Your task to perform on an android device: Go to battery settings Image 0: 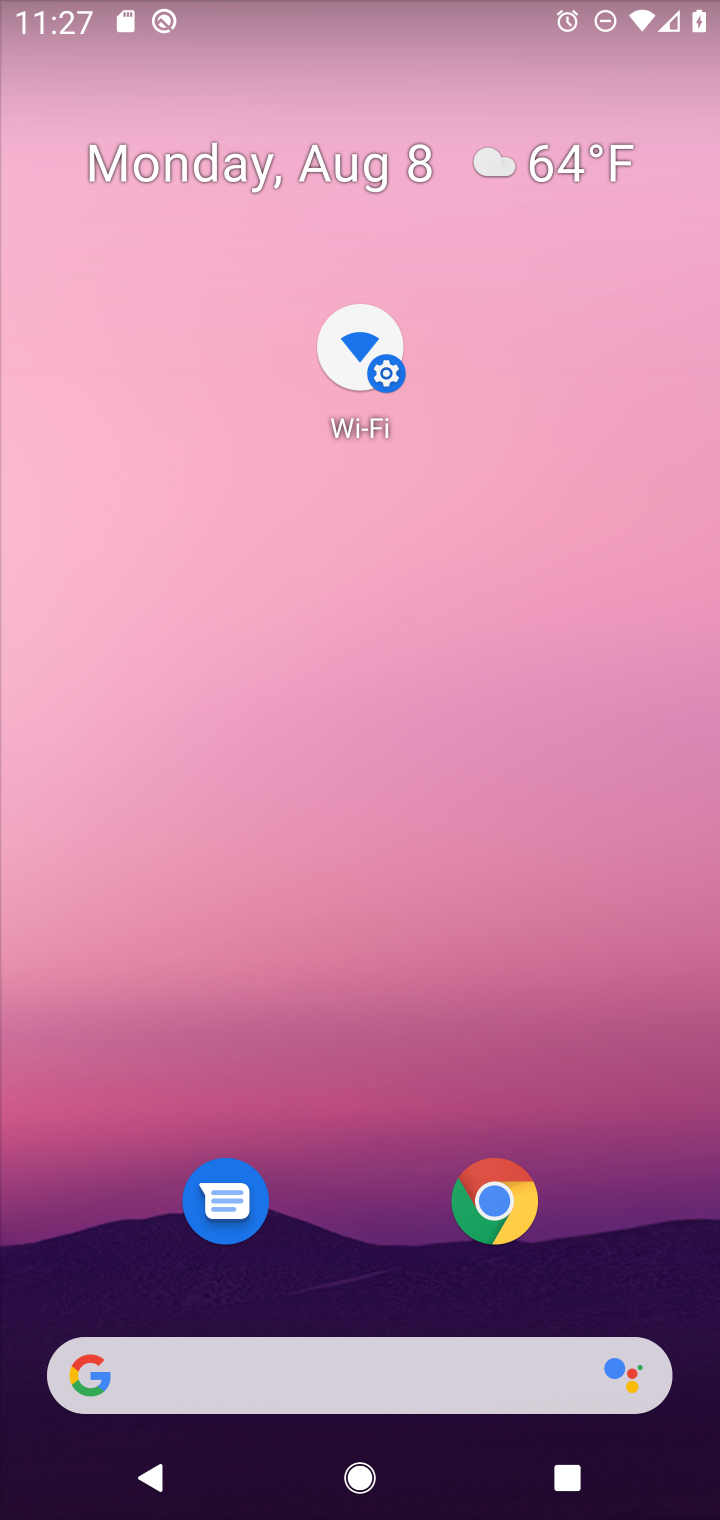
Step 0: press home button
Your task to perform on an android device: Go to battery settings Image 1: 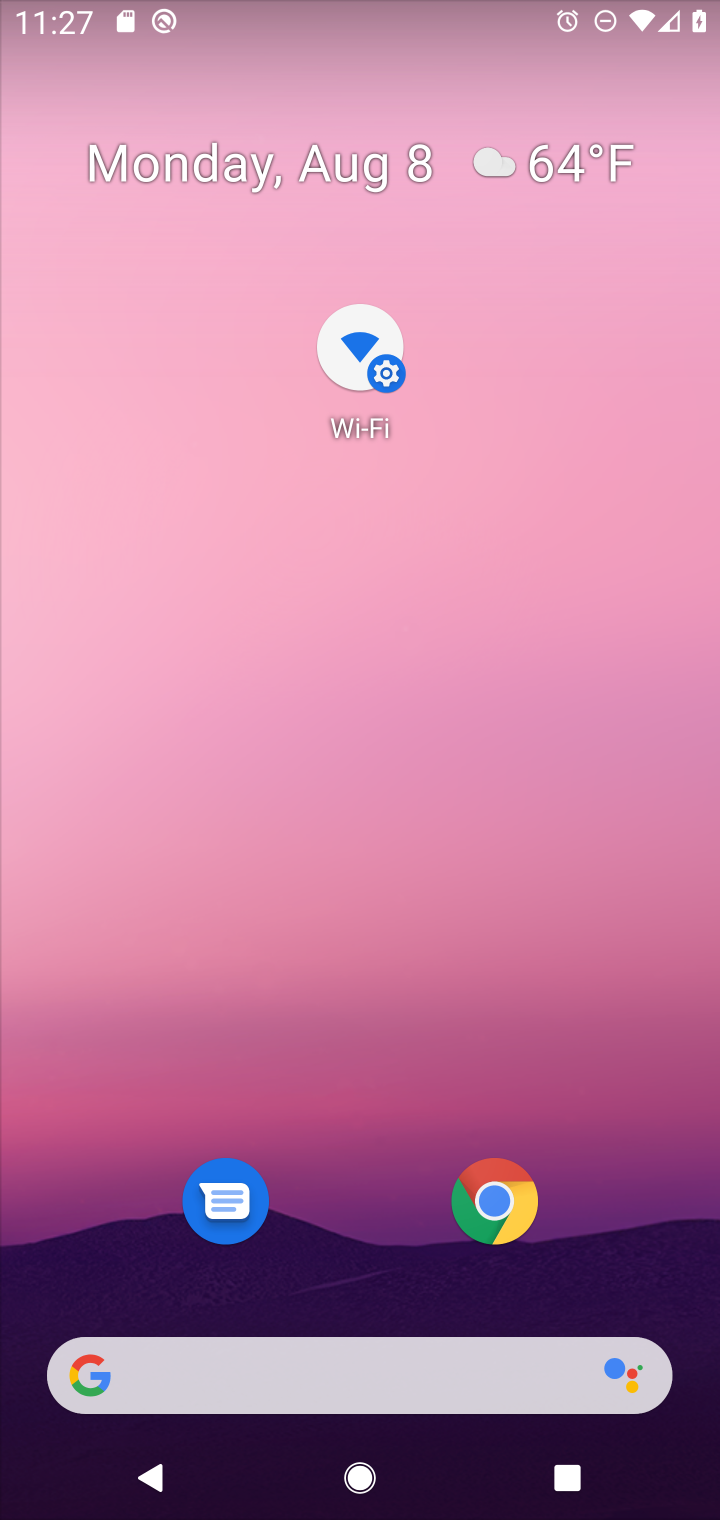
Step 1: drag from (612, 988) to (627, 154)
Your task to perform on an android device: Go to battery settings Image 2: 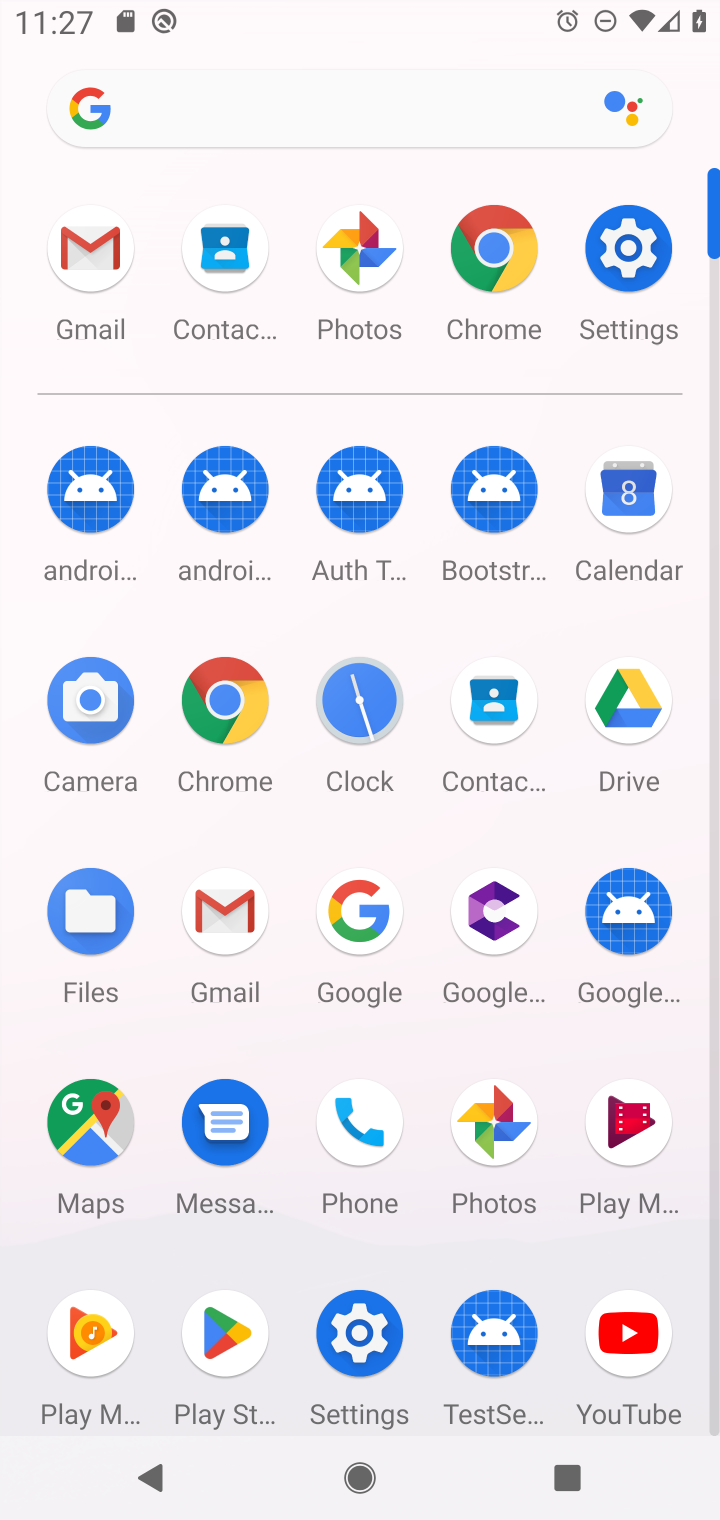
Step 2: click (642, 262)
Your task to perform on an android device: Go to battery settings Image 3: 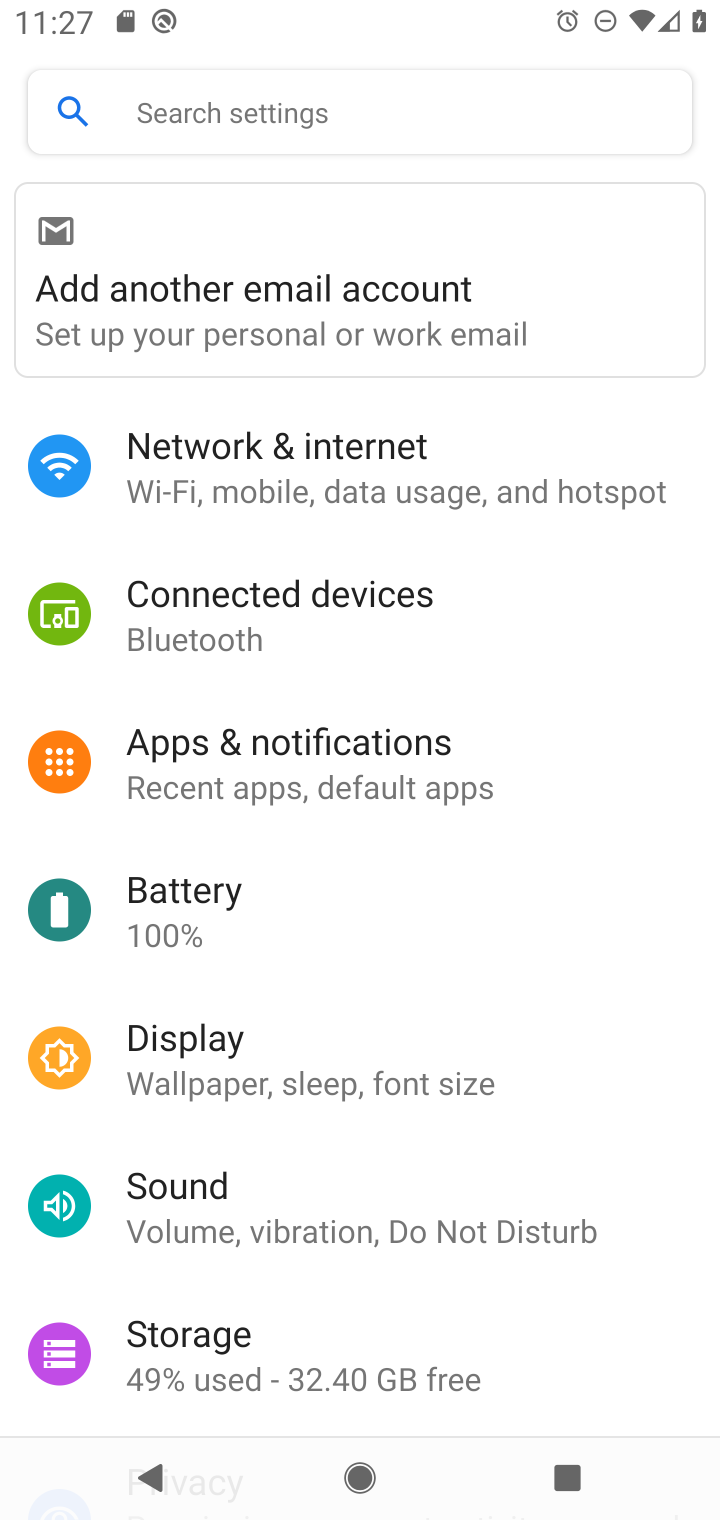
Step 3: drag from (614, 1079) to (630, 694)
Your task to perform on an android device: Go to battery settings Image 4: 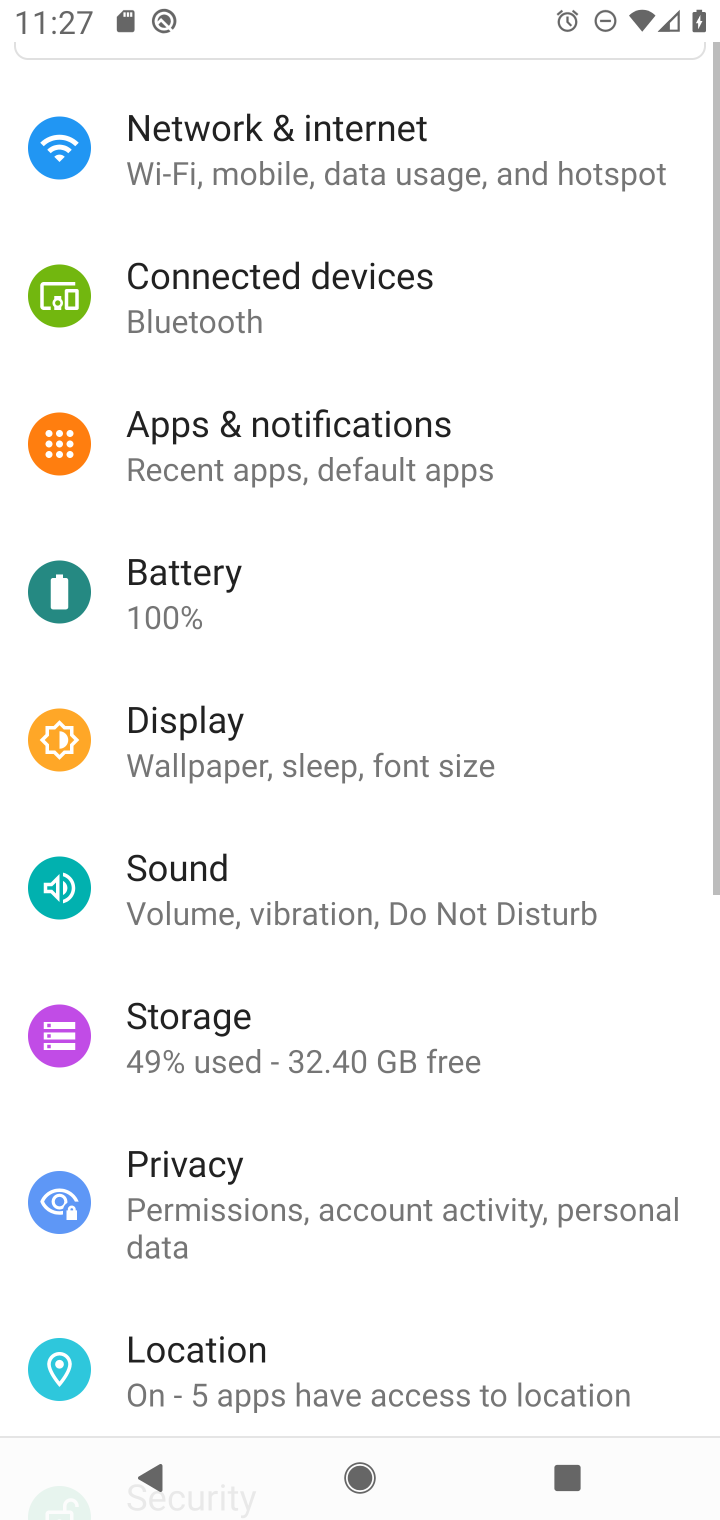
Step 4: drag from (610, 1225) to (617, 699)
Your task to perform on an android device: Go to battery settings Image 5: 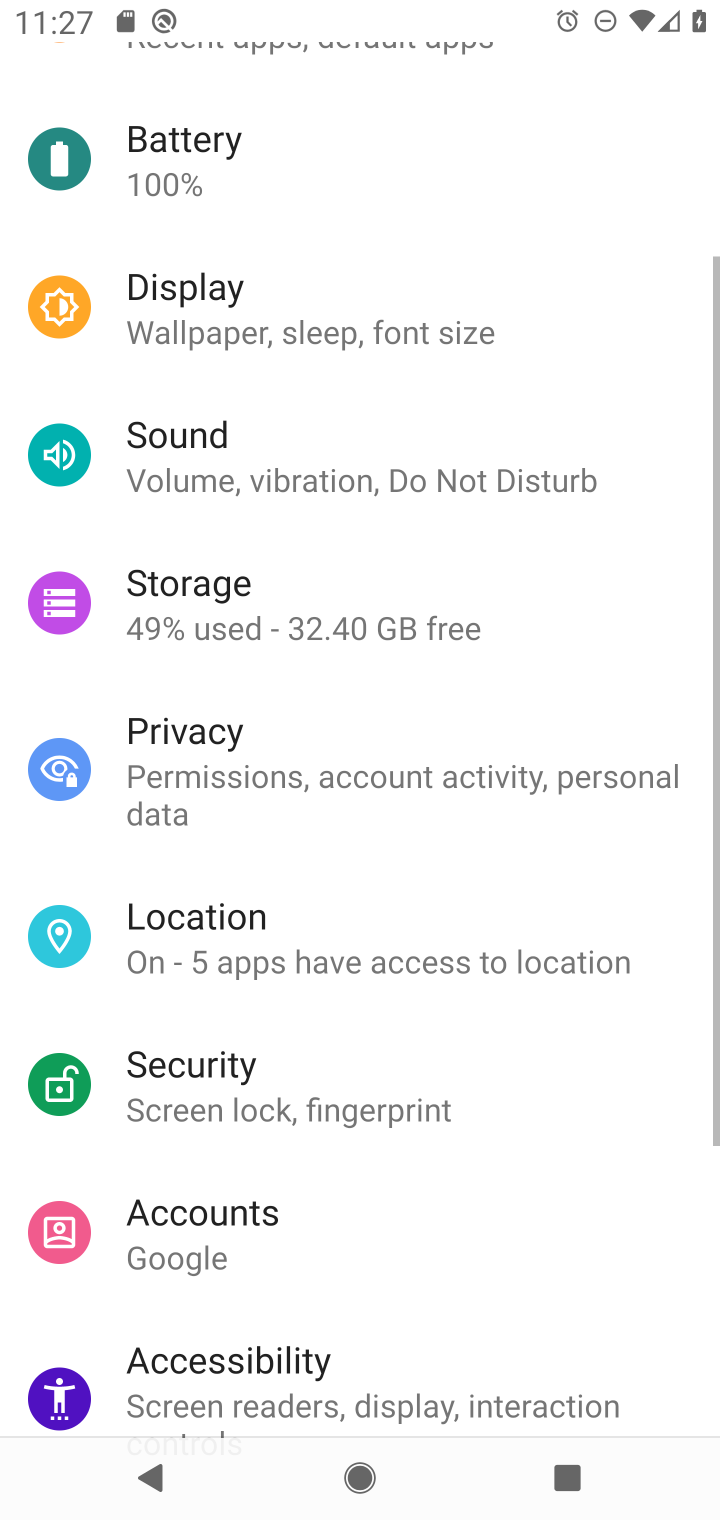
Step 5: drag from (596, 1097) to (639, 747)
Your task to perform on an android device: Go to battery settings Image 6: 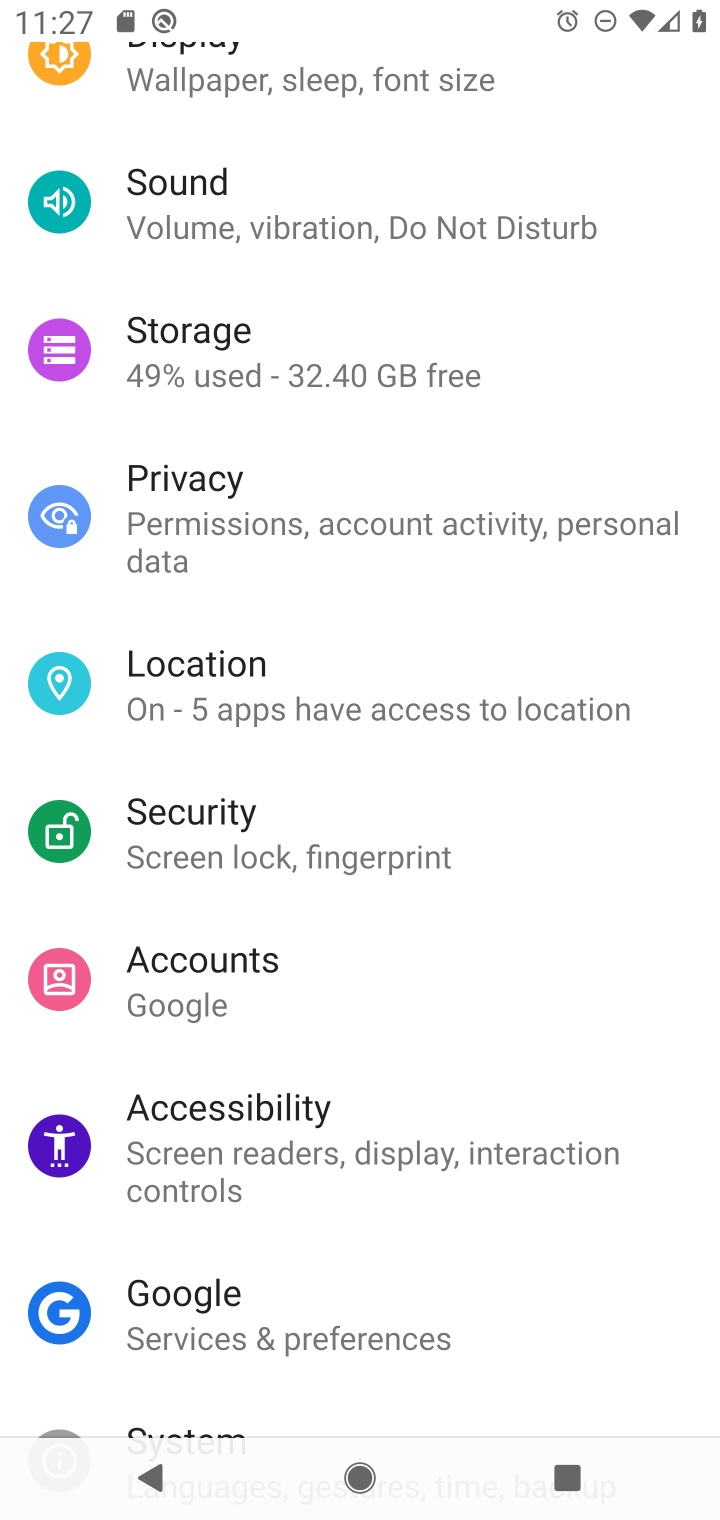
Step 6: drag from (625, 920) to (651, 513)
Your task to perform on an android device: Go to battery settings Image 7: 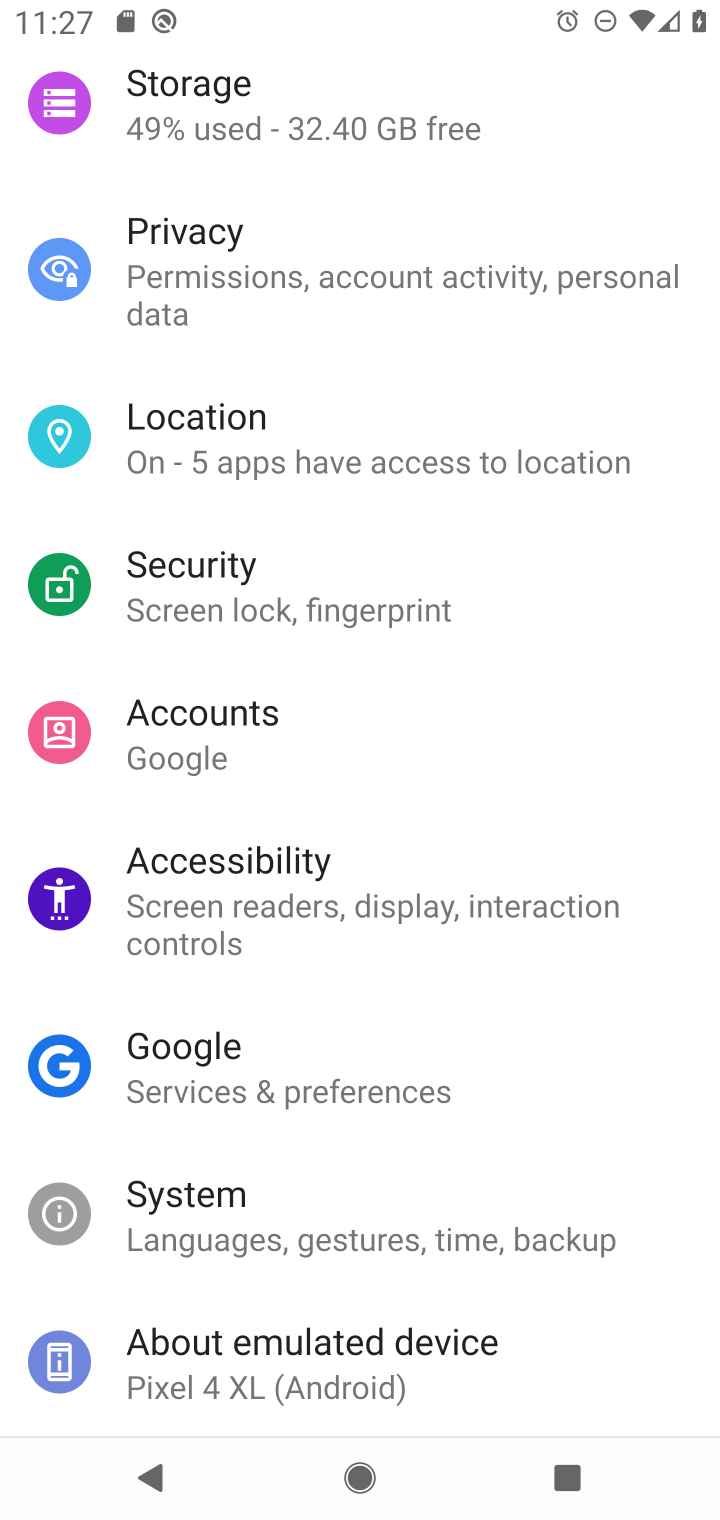
Step 7: drag from (658, 397) to (661, 746)
Your task to perform on an android device: Go to battery settings Image 8: 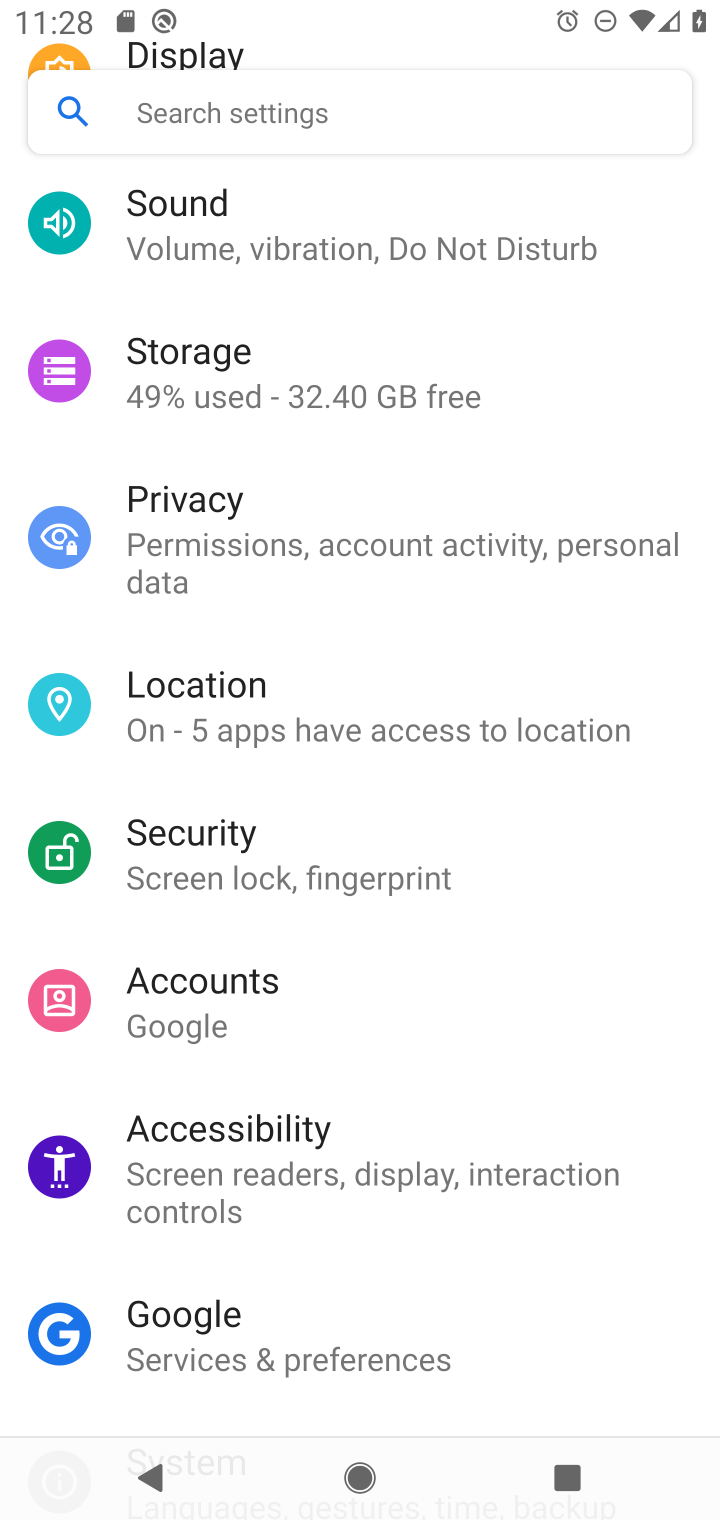
Step 8: drag from (669, 289) to (629, 674)
Your task to perform on an android device: Go to battery settings Image 9: 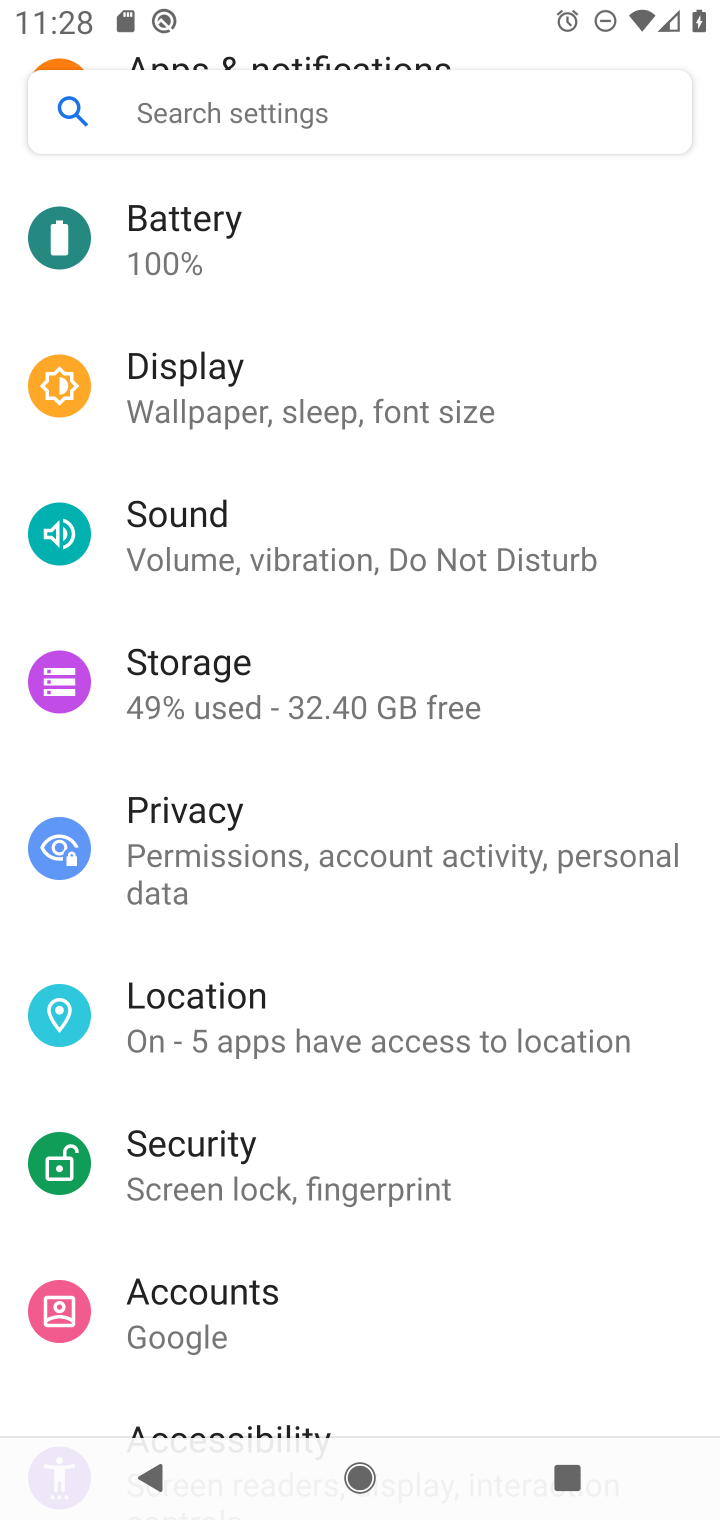
Step 9: drag from (629, 487) to (645, 736)
Your task to perform on an android device: Go to battery settings Image 10: 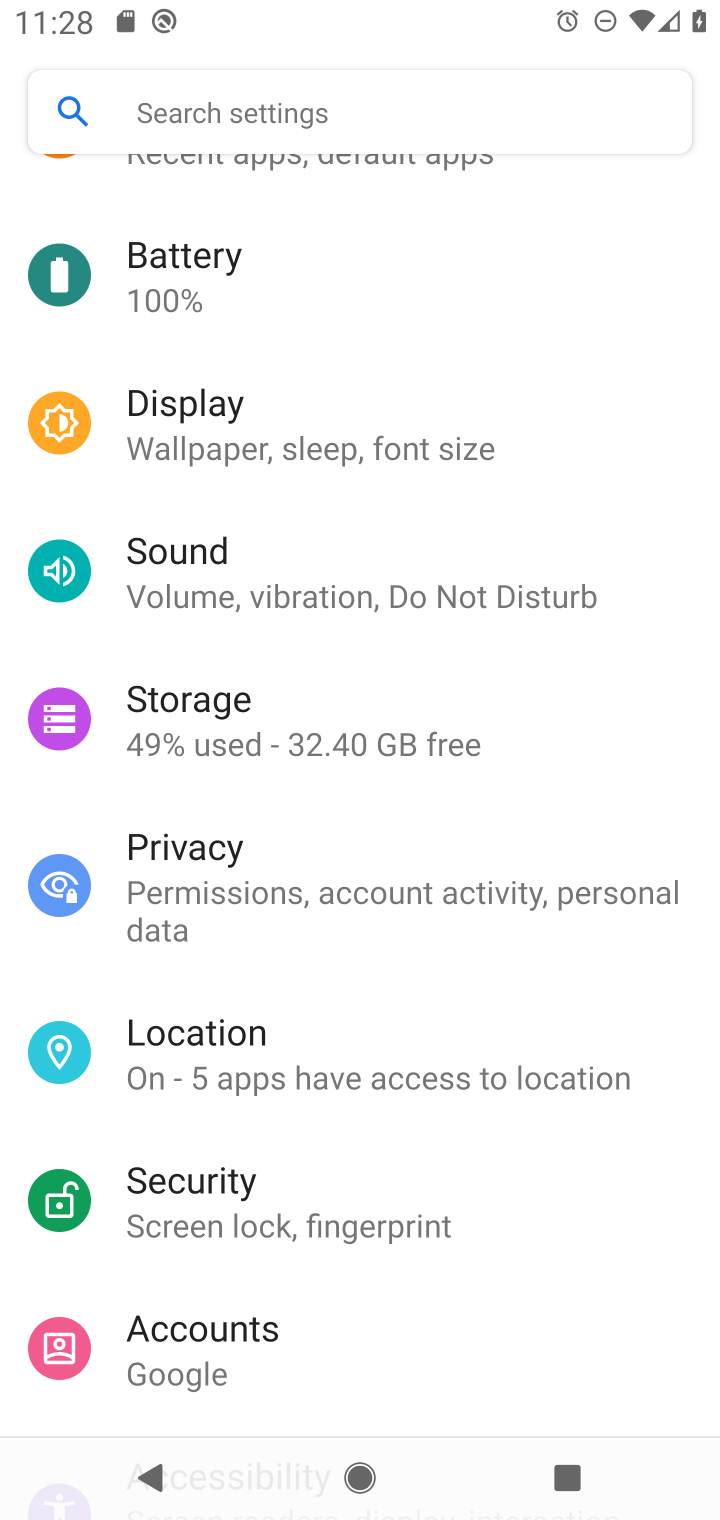
Step 10: drag from (641, 366) to (637, 799)
Your task to perform on an android device: Go to battery settings Image 11: 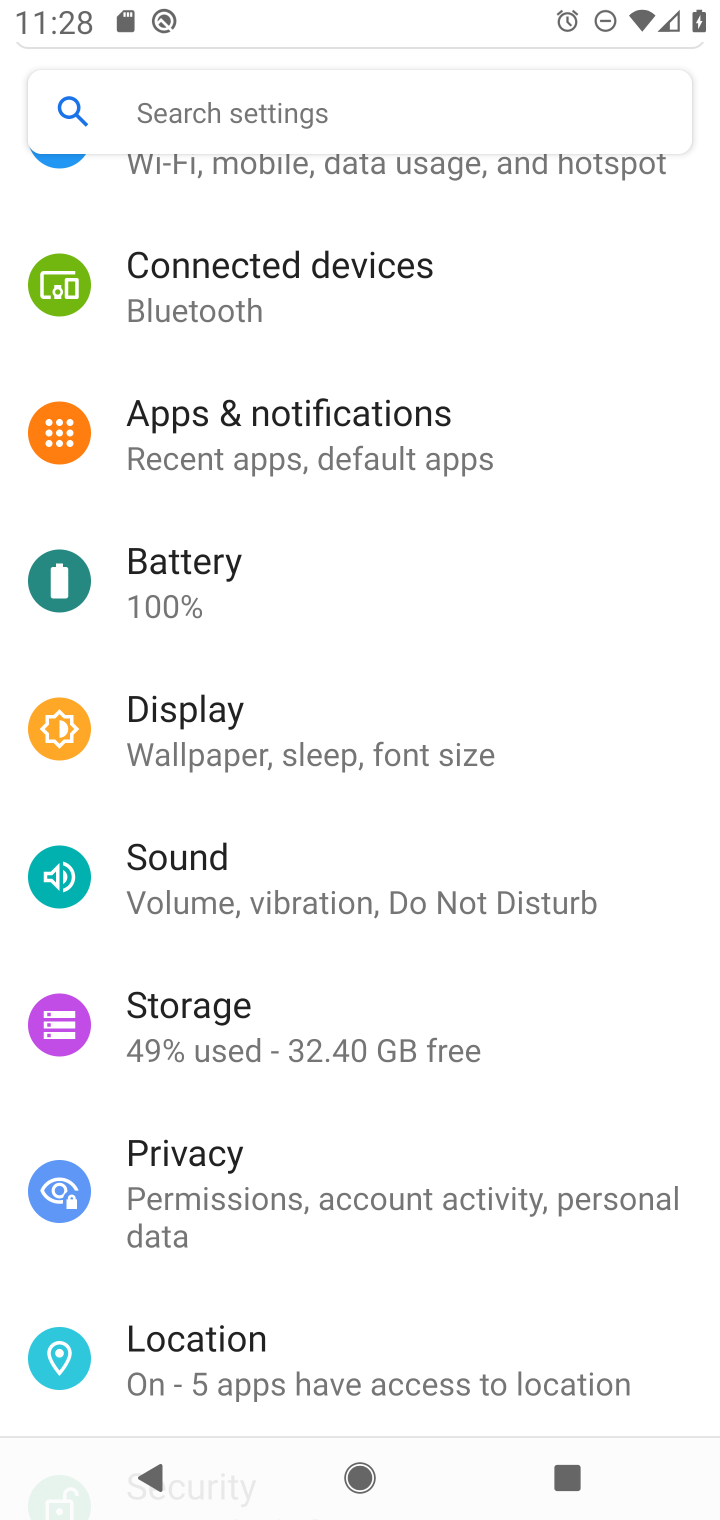
Step 11: drag from (606, 416) to (610, 764)
Your task to perform on an android device: Go to battery settings Image 12: 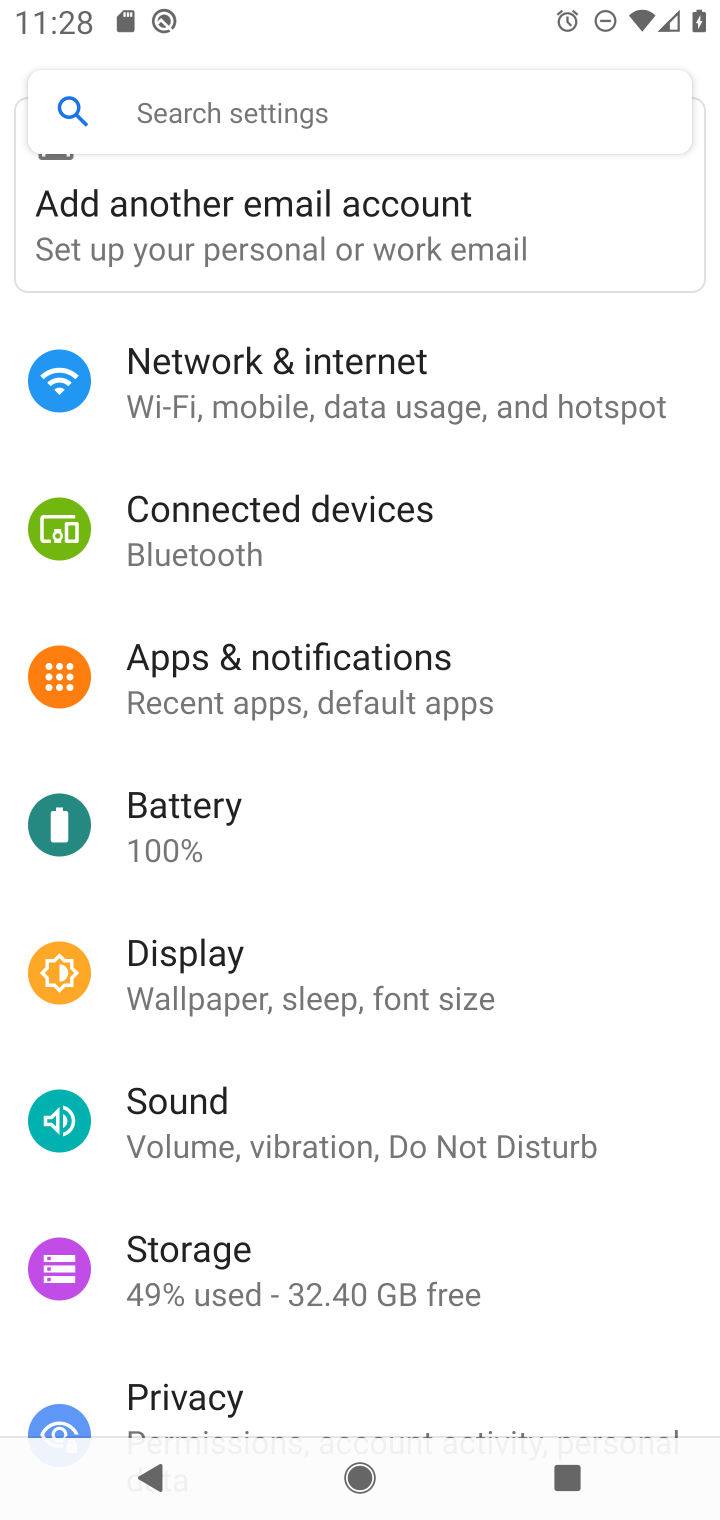
Step 12: click (388, 809)
Your task to perform on an android device: Go to battery settings Image 13: 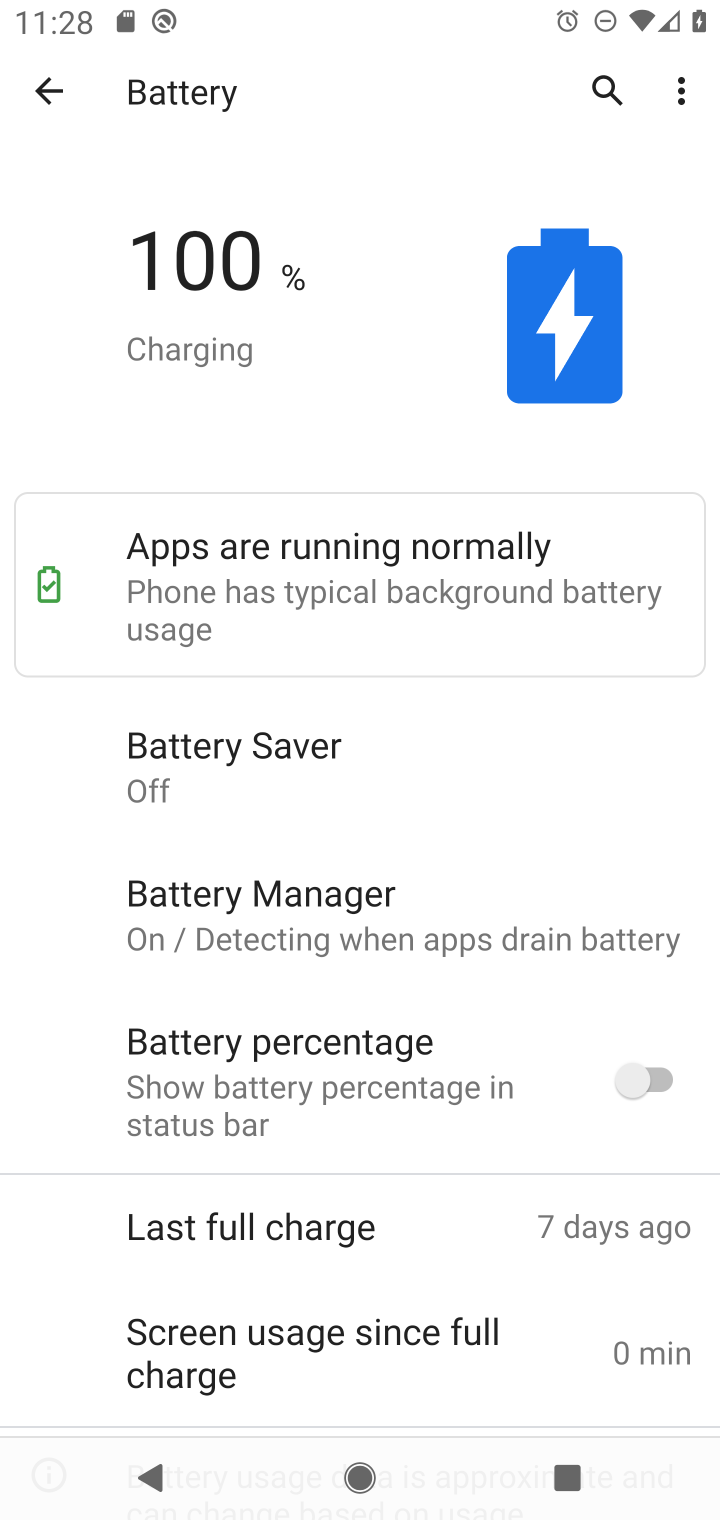
Step 13: task complete